Your task to perform on an android device: Open Reddit.com Image 0: 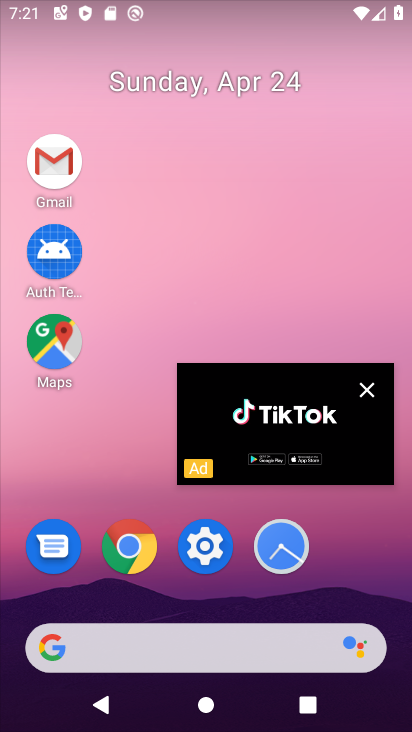
Step 0: click (379, 446)
Your task to perform on an android device: Open Reddit.com Image 1: 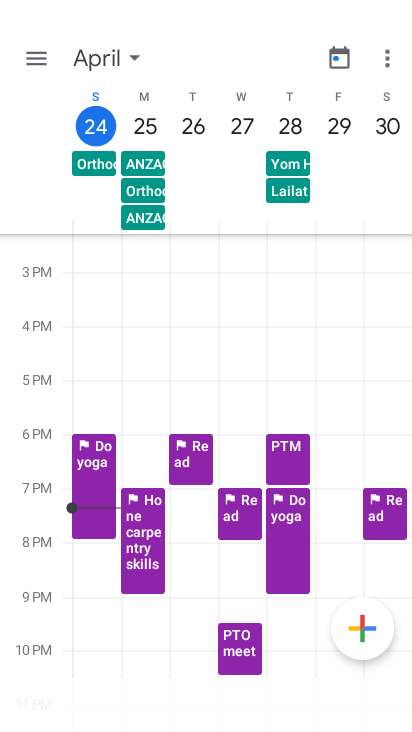
Step 1: press home button
Your task to perform on an android device: Open Reddit.com Image 2: 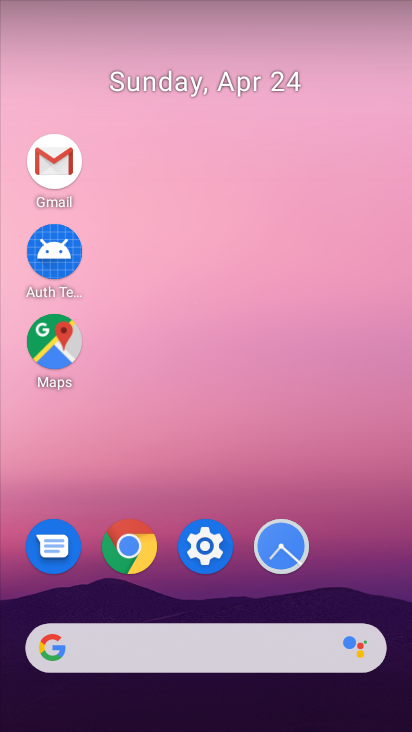
Step 2: click (173, 639)
Your task to perform on an android device: Open Reddit.com Image 3: 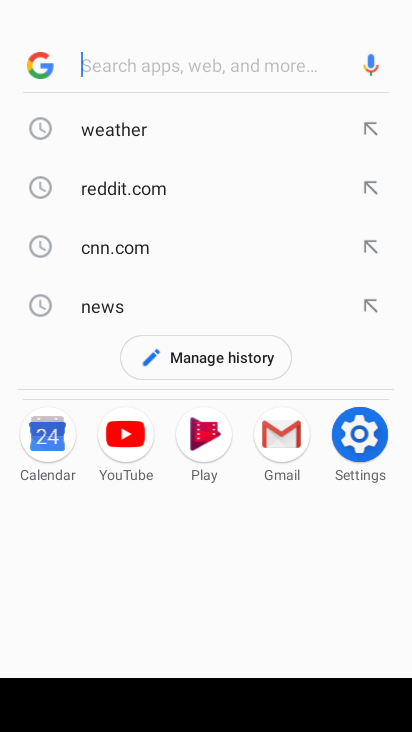
Step 3: click (144, 181)
Your task to perform on an android device: Open Reddit.com Image 4: 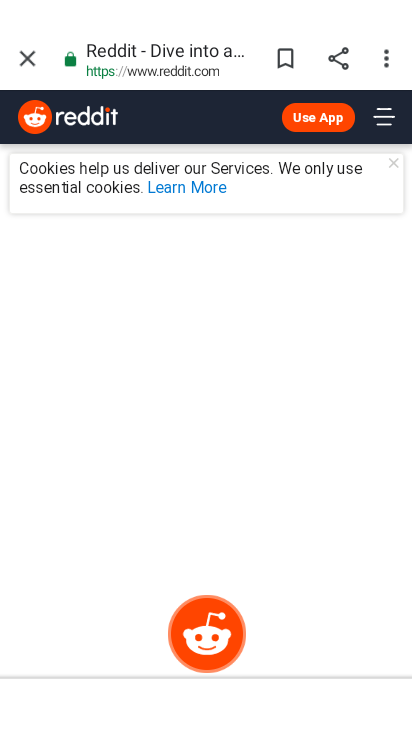
Step 4: task complete